Your task to perform on an android device: create a new album in the google photos Image 0: 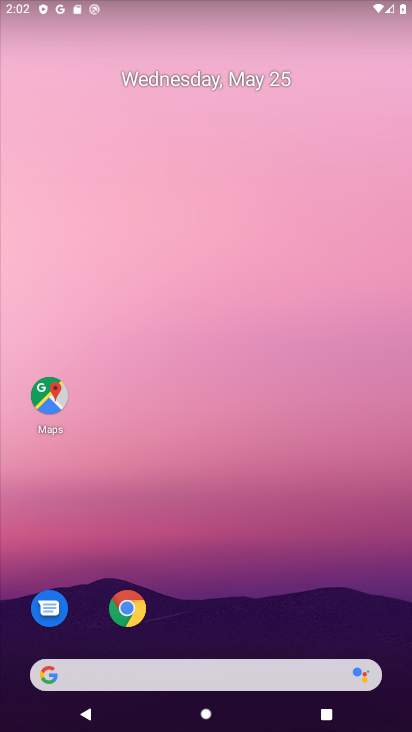
Step 0: drag from (238, 667) to (235, 249)
Your task to perform on an android device: create a new album in the google photos Image 1: 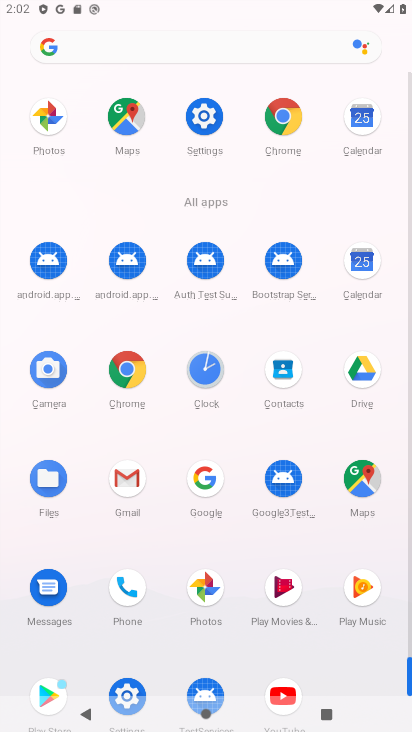
Step 1: click (43, 135)
Your task to perform on an android device: create a new album in the google photos Image 2: 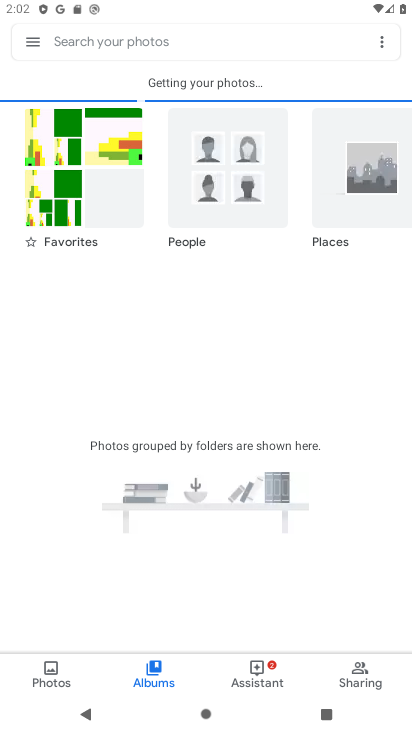
Step 2: click (374, 45)
Your task to perform on an android device: create a new album in the google photos Image 3: 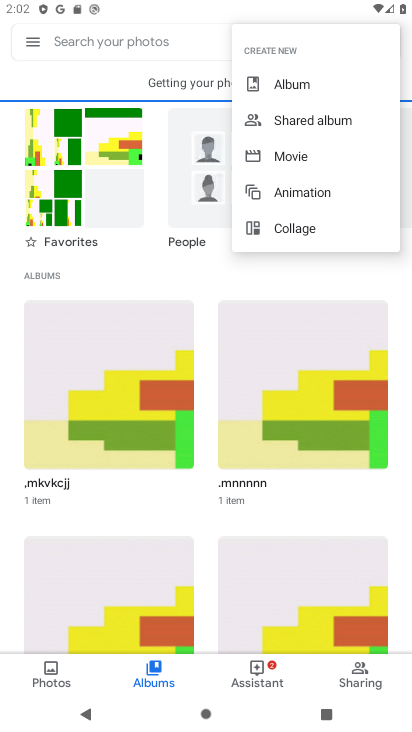
Step 3: click (284, 92)
Your task to perform on an android device: create a new album in the google photos Image 4: 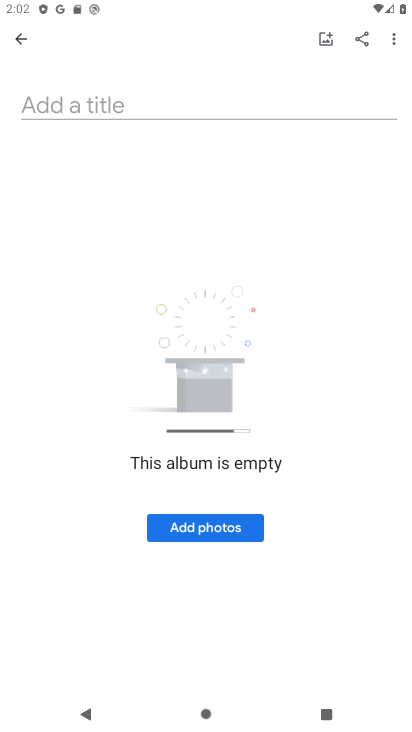
Step 4: click (118, 104)
Your task to perform on an android device: create a new album in the google photos Image 5: 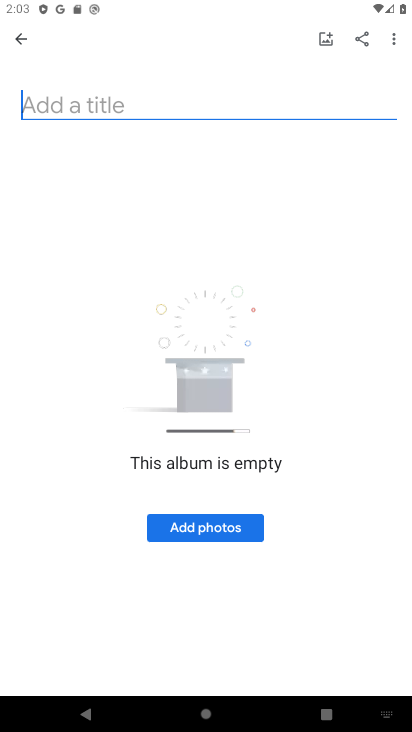
Step 5: type "ramu"
Your task to perform on an android device: create a new album in the google photos Image 6: 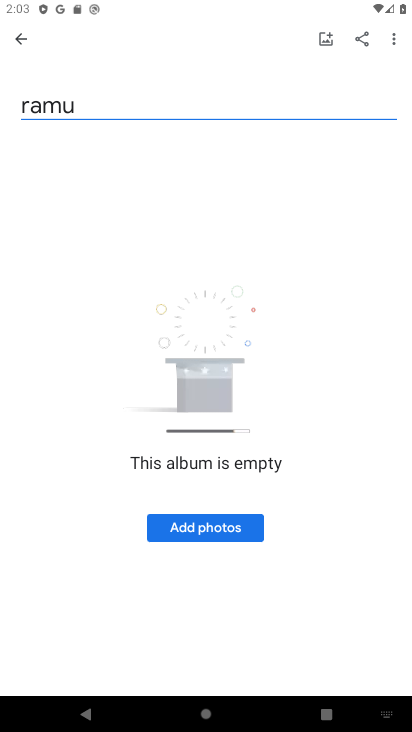
Step 6: click (209, 528)
Your task to perform on an android device: create a new album in the google photos Image 7: 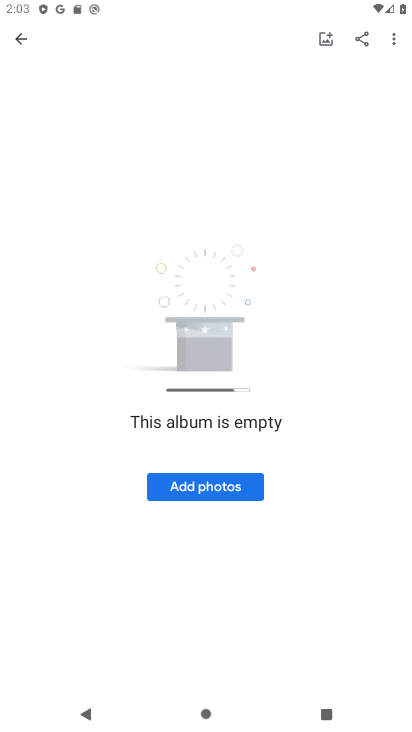
Step 7: click (205, 484)
Your task to perform on an android device: create a new album in the google photos Image 8: 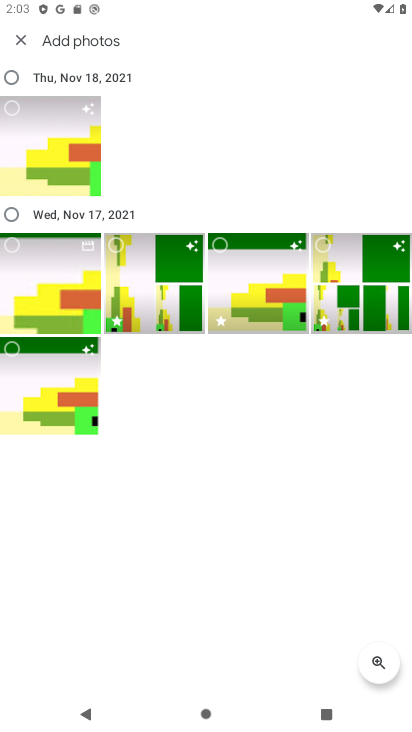
Step 8: drag from (14, 108) to (5, 68)
Your task to perform on an android device: create a new album in the google photos Image 9: 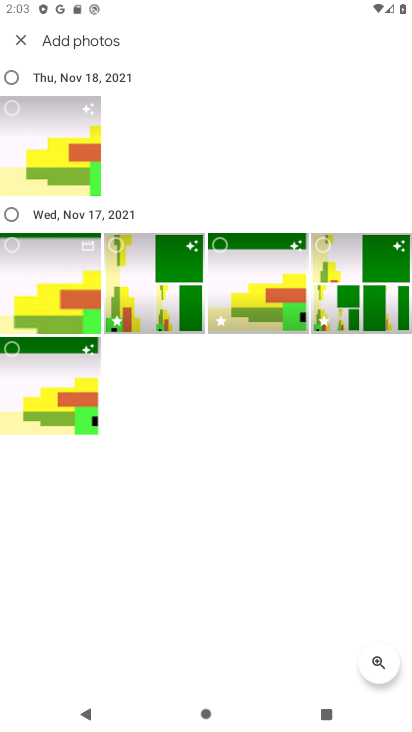
Step 9: click (13, 79)
Your task to perform on an android device: create a new album in the google photos Image 10: 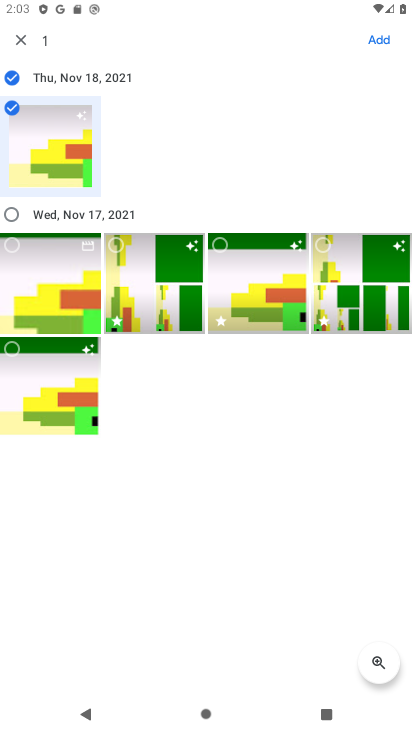
Step 10: click (379, 40)
Your task to perform on an android device: create a new album in the google photos Image 11: 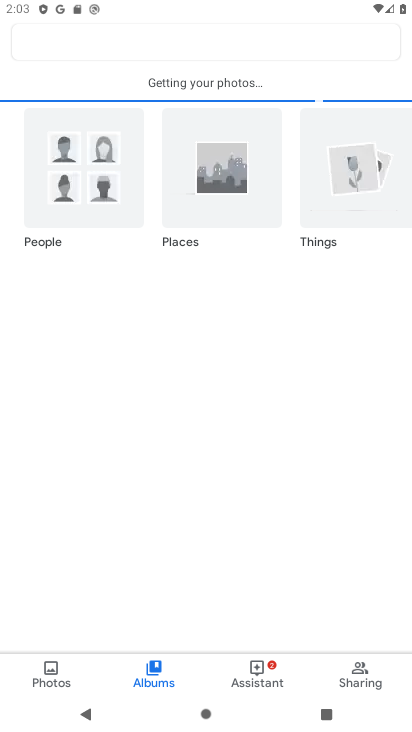
Step 11: task complete